Your task to perform on an android device: open app "eBay: The shopping marketplace" Image 0: 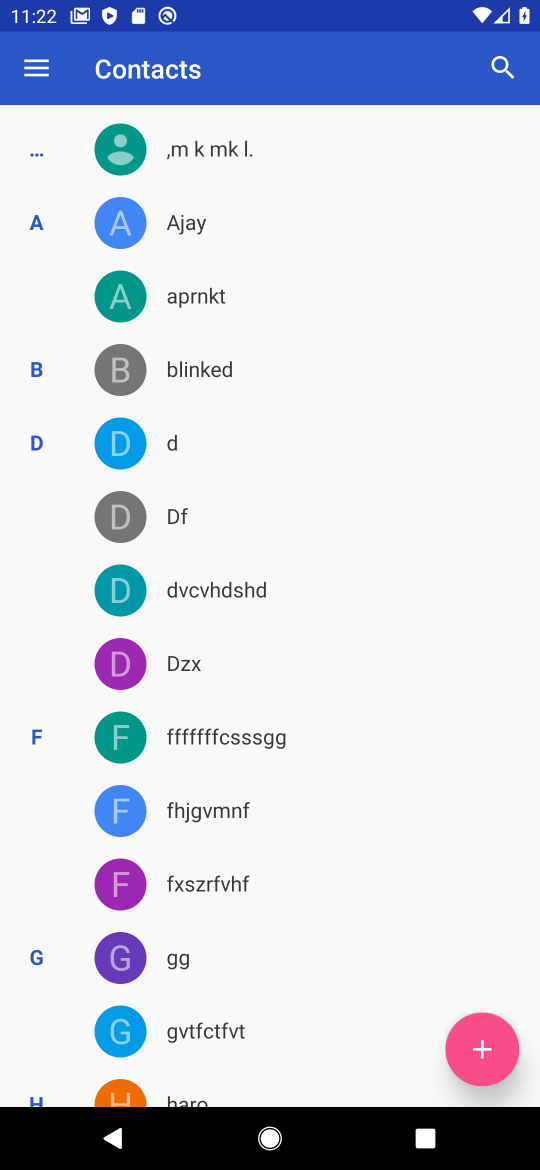
Step 0: press back button
Your task to perform on an android device: open app "eBay: The shopping marketplace" Image 1: 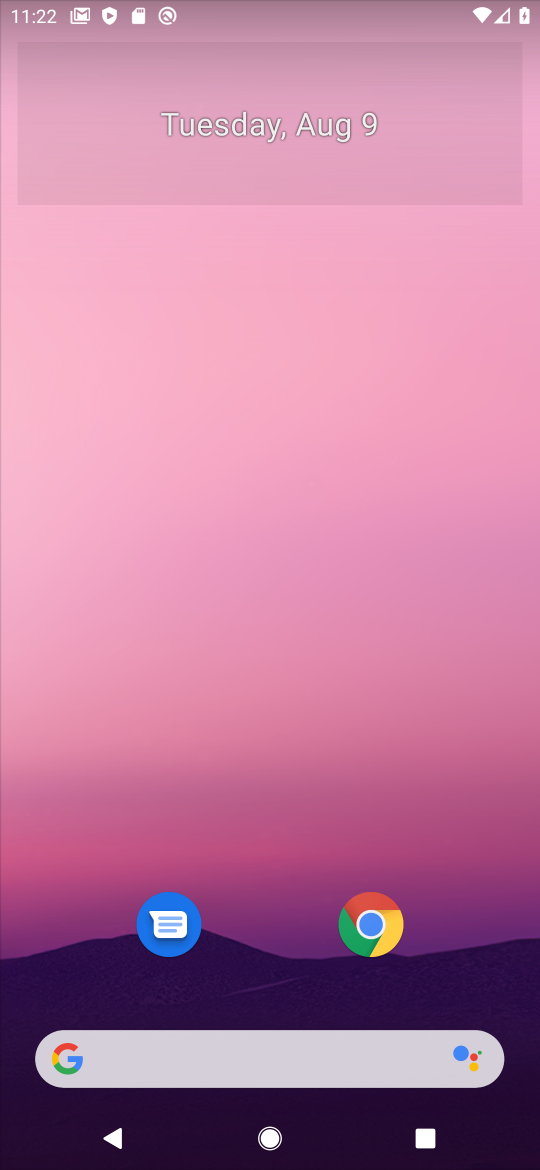
Step 1: drag from (245, 943) to (340, 120)
Your task to perform on an android device: open app "eBay: The shopping marketplace" Image 2: 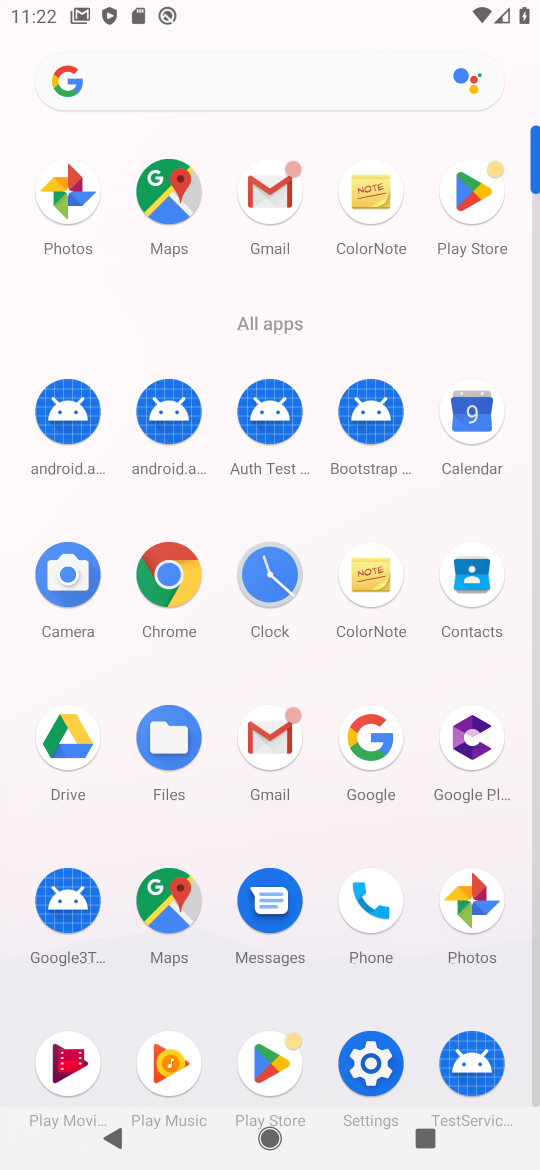
Step 2: click (457, 202)
Your task to perform on an android device: open app "eBay: The shopping marketplace" Image 3: 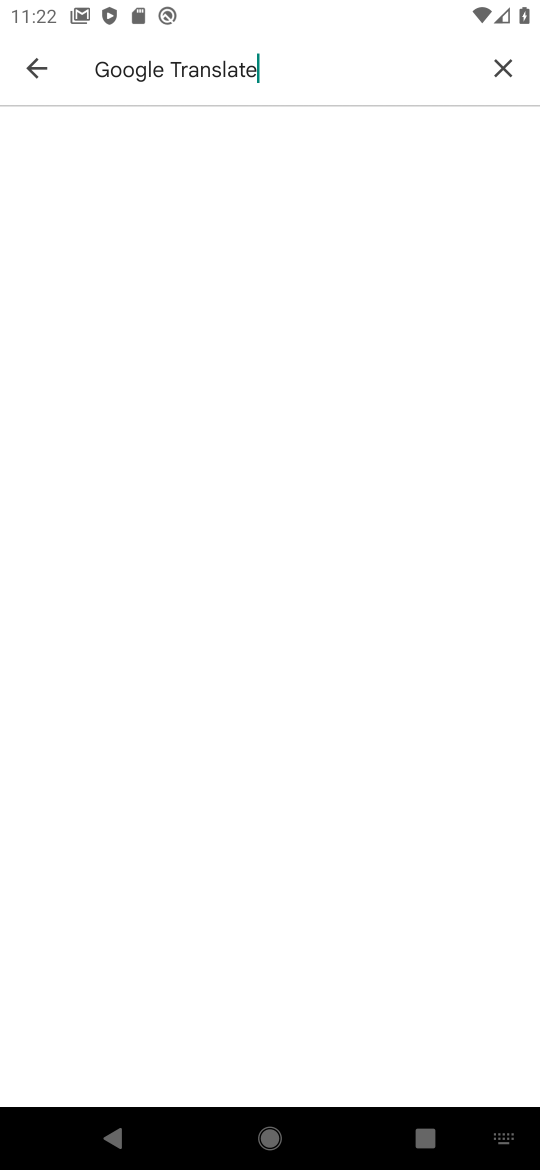
Step 3: click (507, 77)
Your task to perform on an android device: open app "eBay: The shopping marketplace" Image 4: 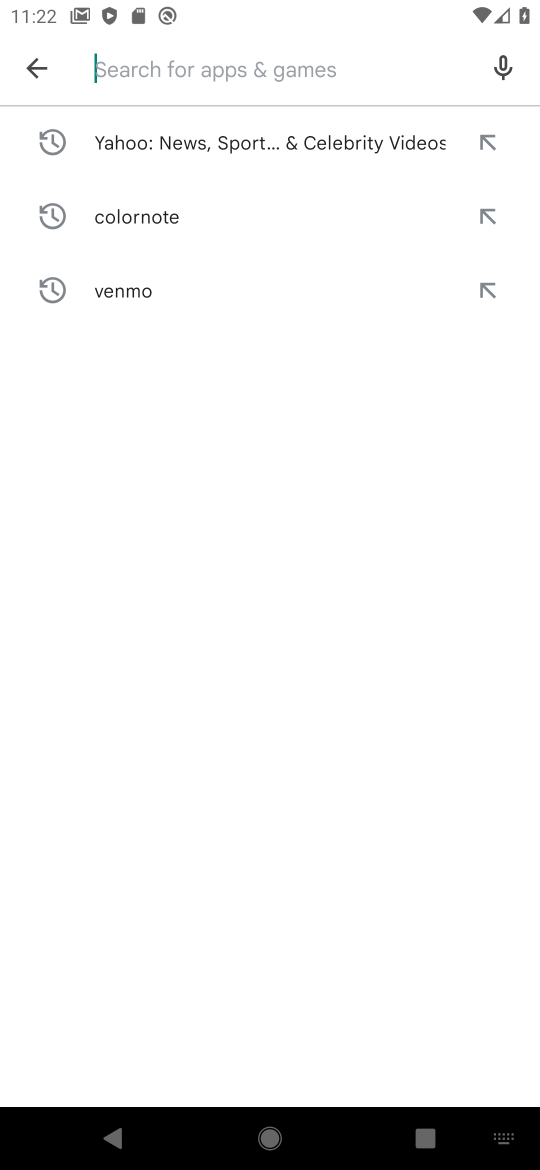
Step 4: click (189, 77)
Your task to perform on an android device: open app "eBay: The shopping marketplace" Image 5: 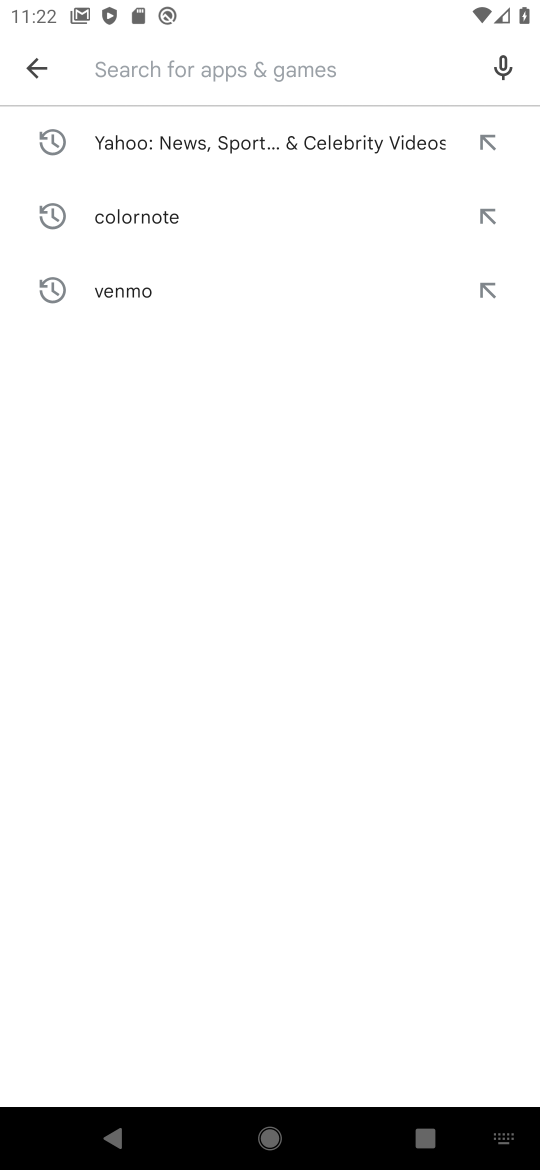
Step 5: type "ebay"
Your task to perform on an android device: open app "eBay: The shopping marketplace" Image 6: 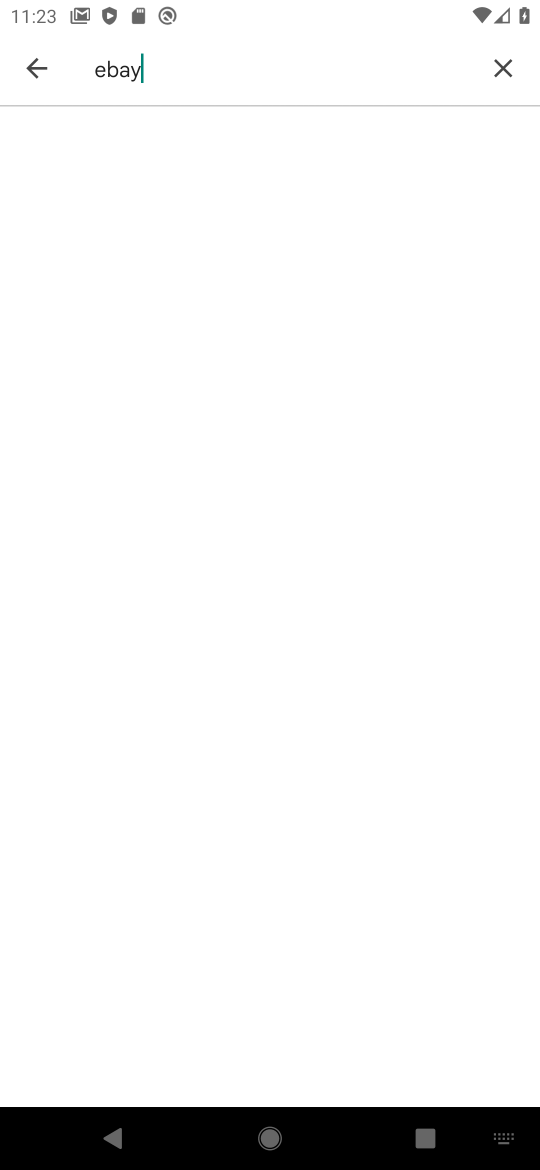
Step 6: press back button
Your task to perform on an android device: open app "eBay: The shopping marketplace" Image 7: 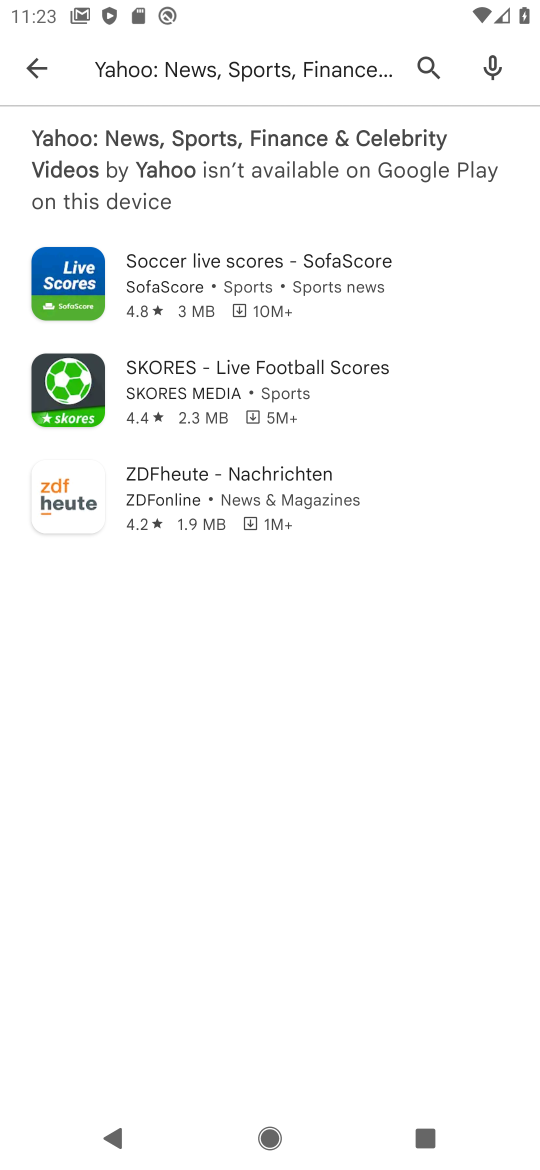
Step 7: press back button
Your task to perform on an android device: open app "eBay: The shopping marketplace" Image 8: 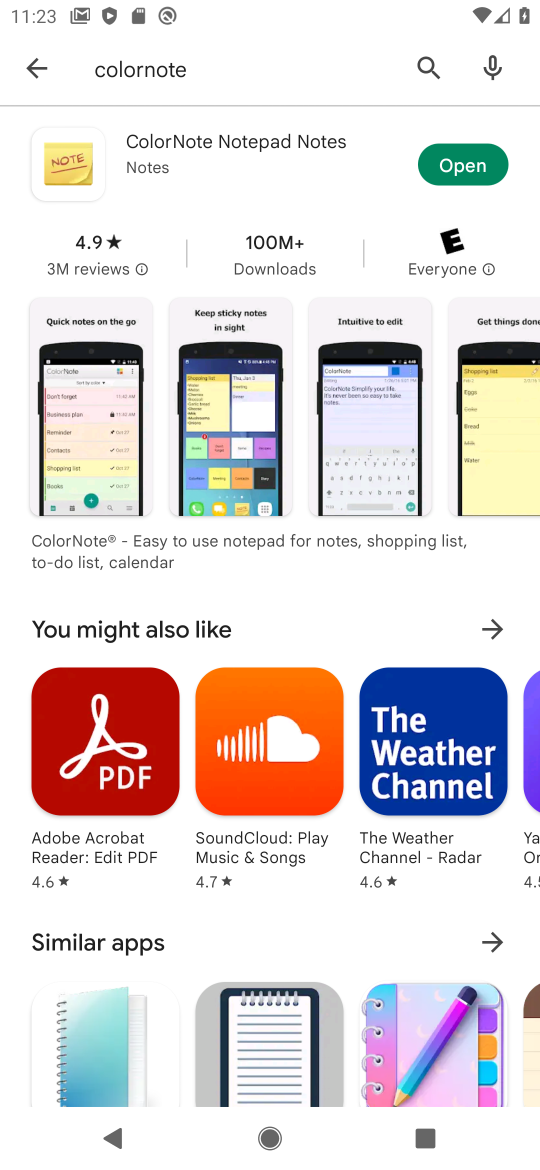
Step 8: press back button
Your task to perform on an android device: open app "eBay: The shopping marketplace" Image 9: 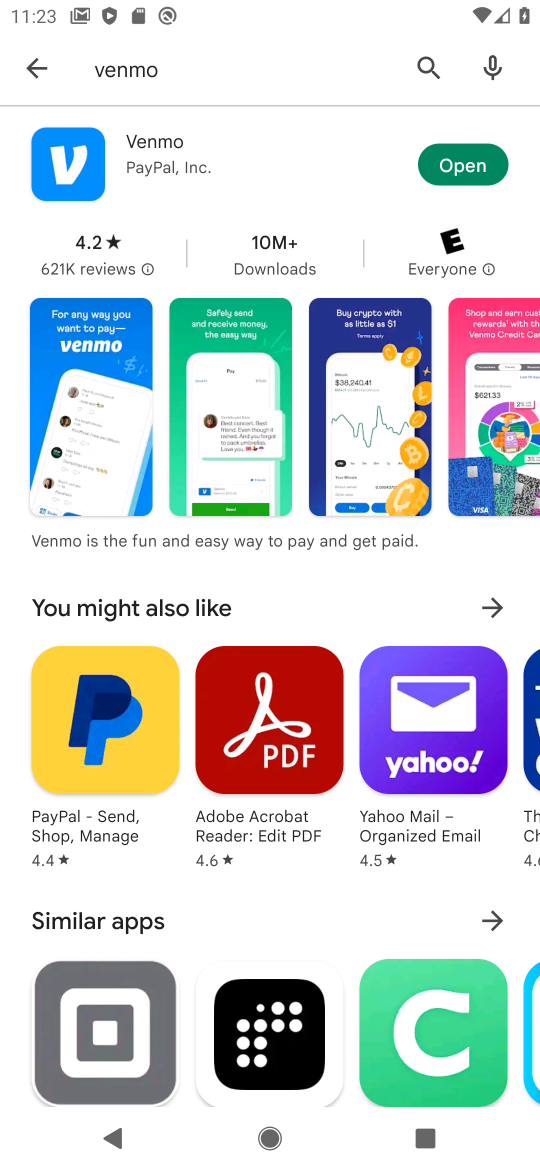
Step 9: press back button
Your task to perform on an android device: open app "eBay: The shopping marketplace" Image 10: 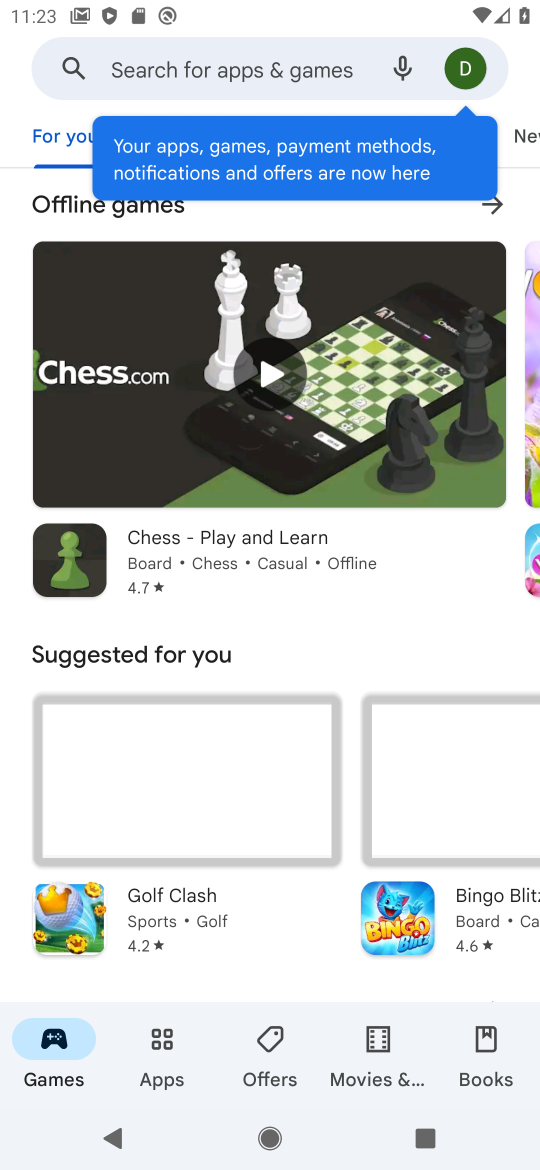
Step 10: click (161, 1031)
Your task to perform on an android device: open app "eBay: The shopping marketplace" Image 11: 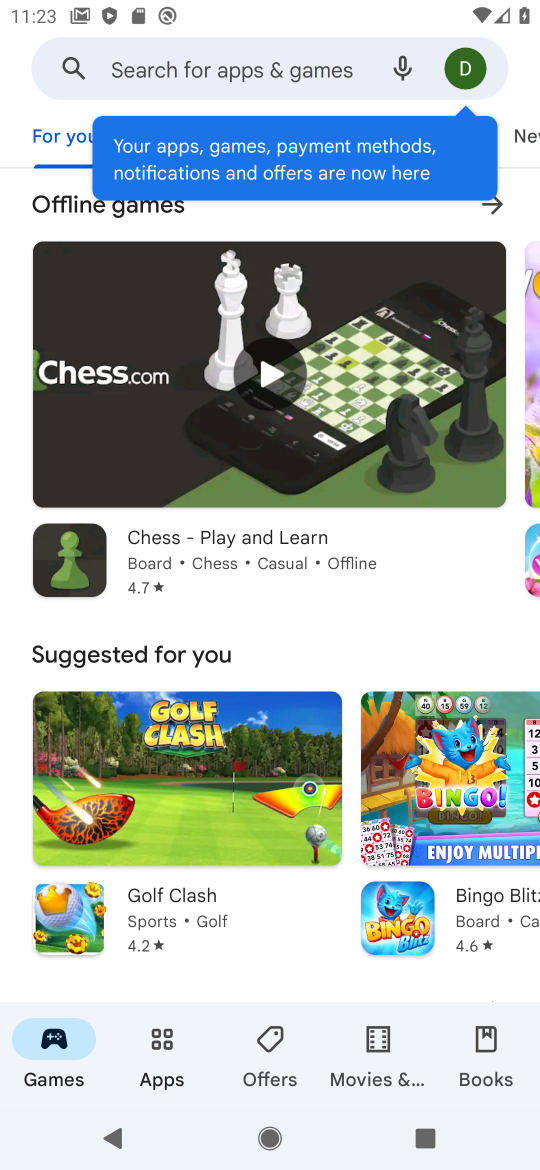
Step 11: click (164, 68)
Your task to perform on an android device: open app "eBay: The shopping marketplace" Image 12: 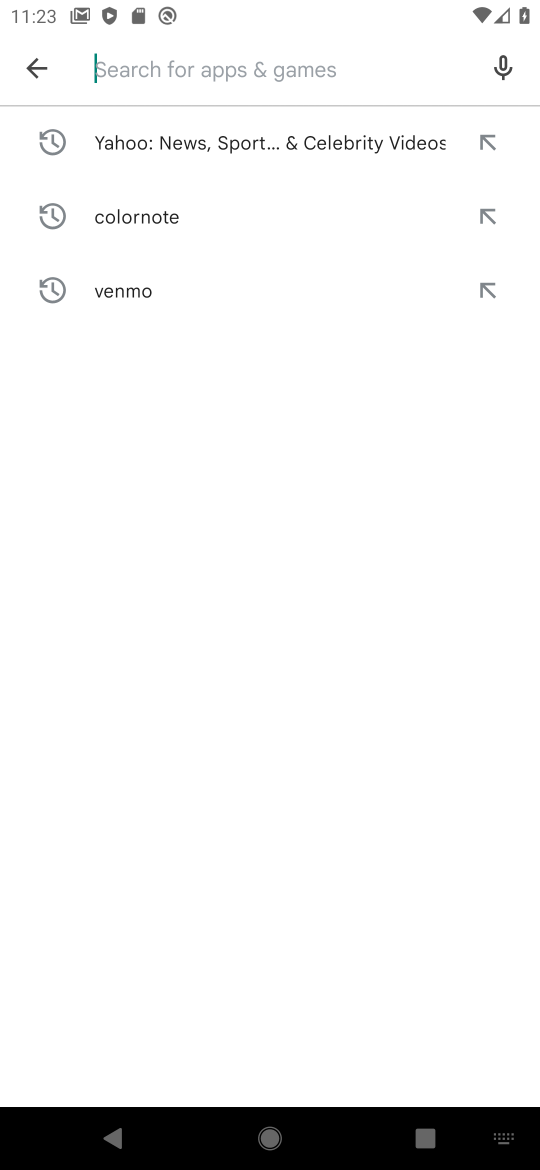
Step 12: type "ebay"
Your task to perform on an android device: open app "eBay: The shopping marketplace" Image 13: 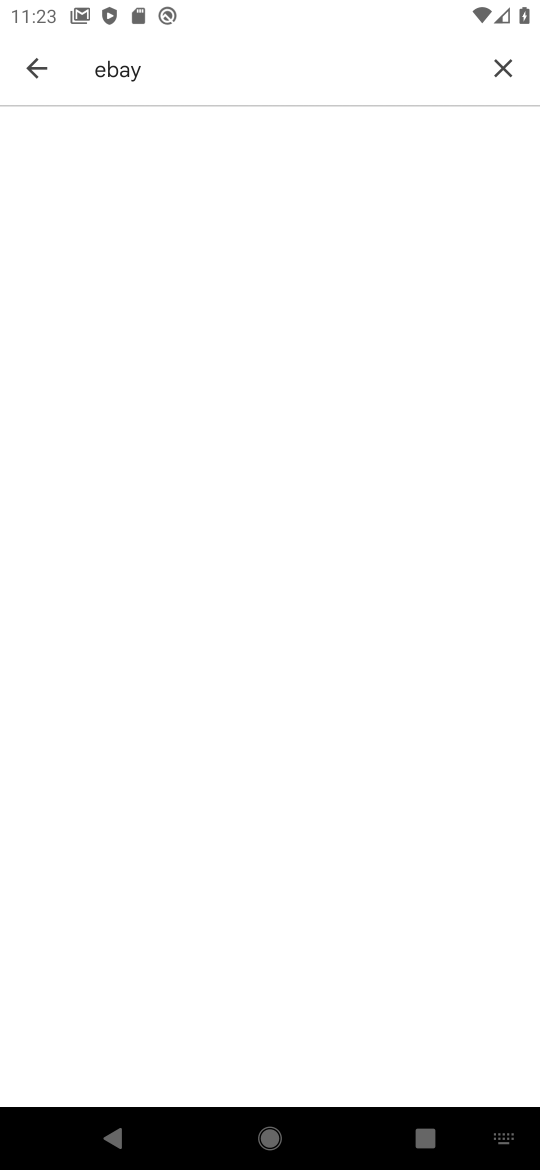
Step 13: drag from (310, 154) to (268, 925)
Your task to perform on an android device: open app "eBay: The shopping marketplace" Image 14: 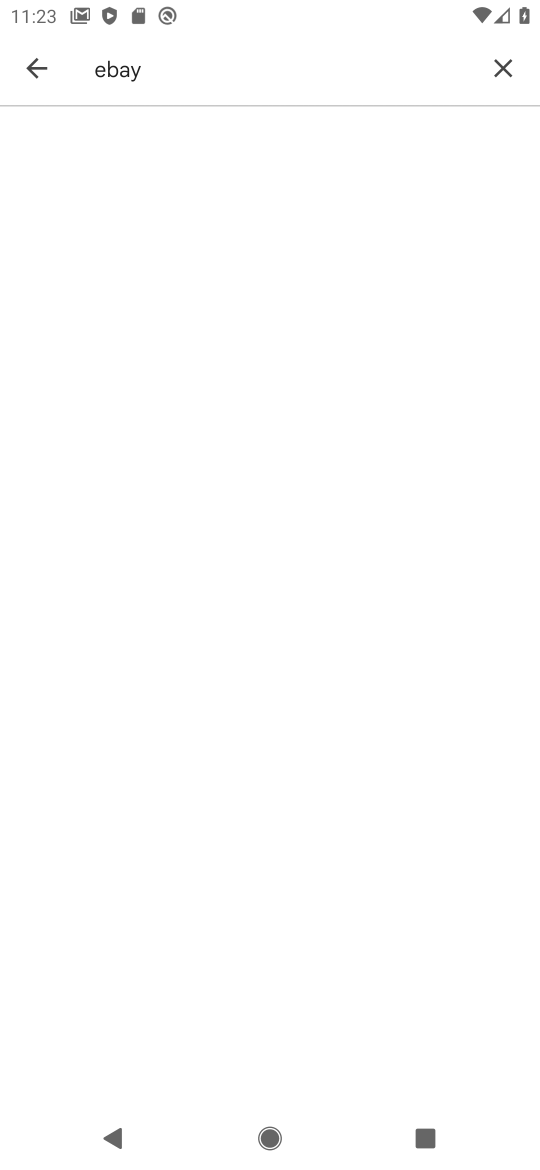
Step 14: click (490, 58)
Your task to perform on an android device: open app "eBay: The shopping marketplace" Image 15: 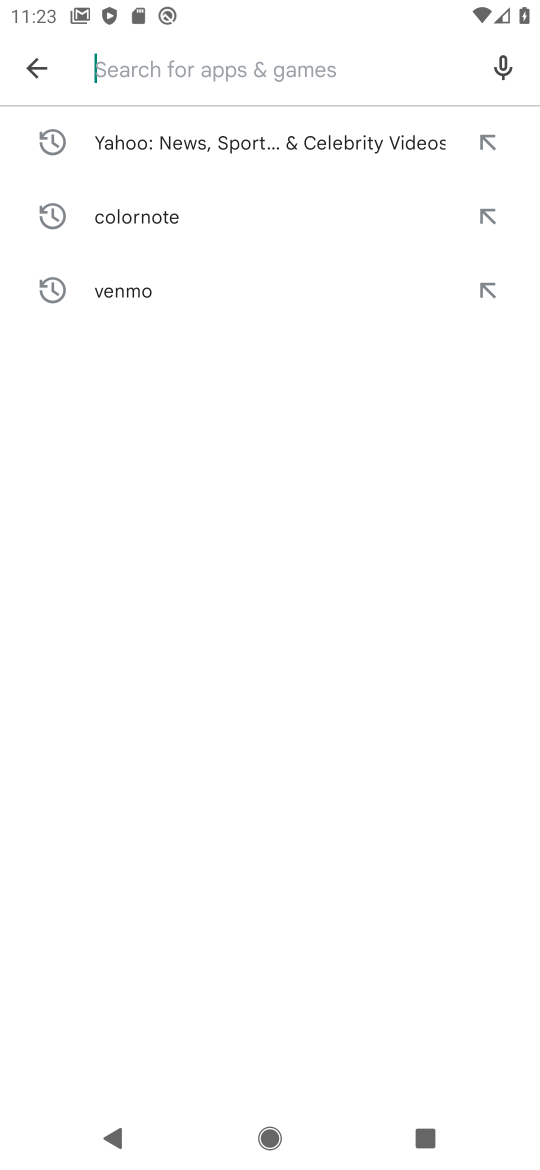
Step 15: click (163, 67)
Your task to perform on an android device: open app "eBay: The shopping marketplace" Image 16: 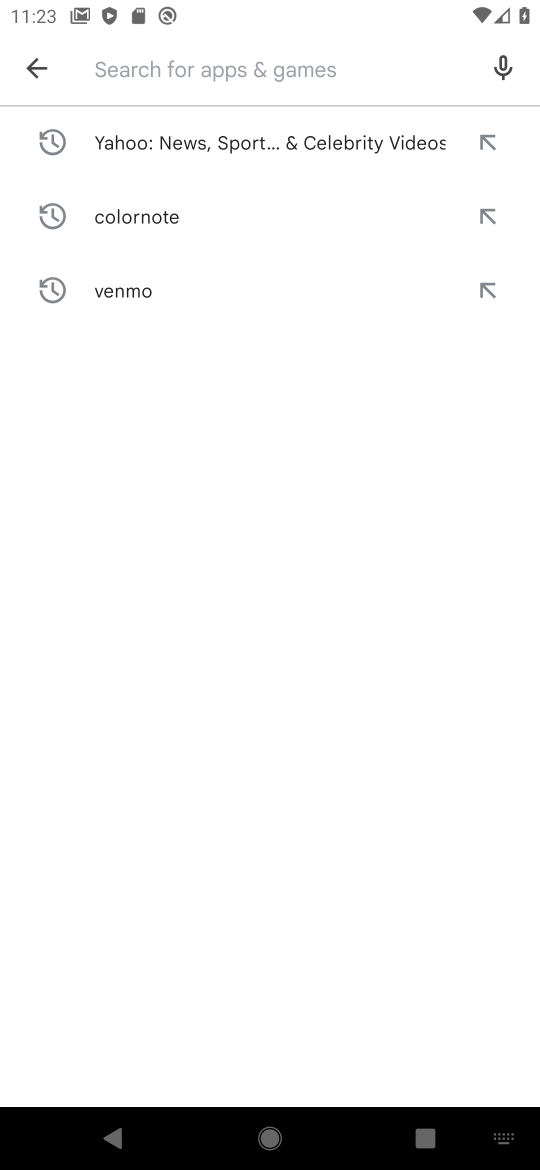
Step 16: click (202, 144)
Your task to perform on an android device: open app "eBay: The shopping marketplace" Image 17: 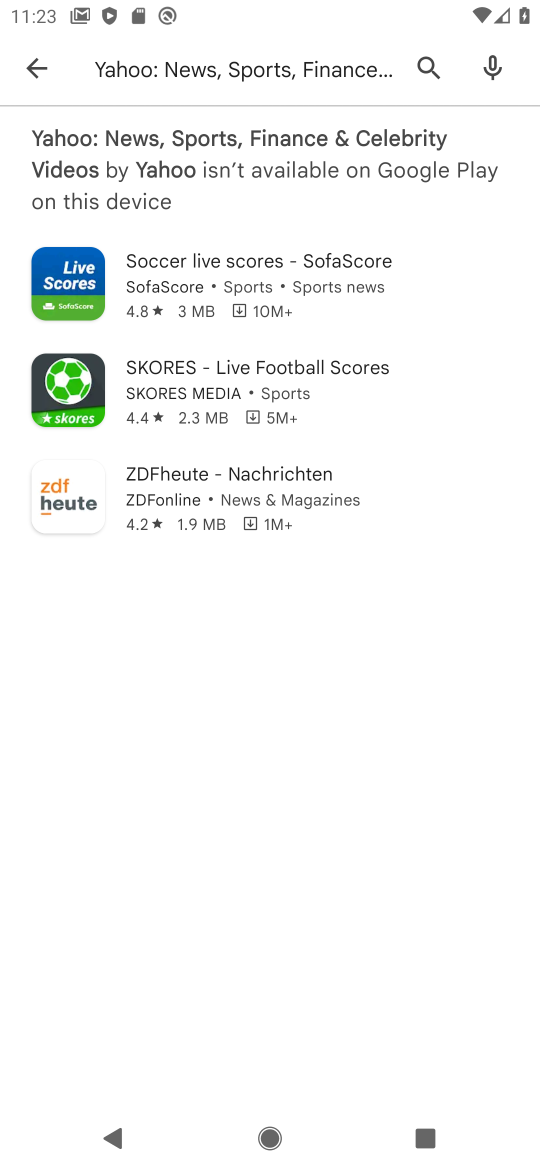
Step 17: click (433, 71)
Your task to perform on an android device: open app "eBay: The shopping marketplace" Image 18: 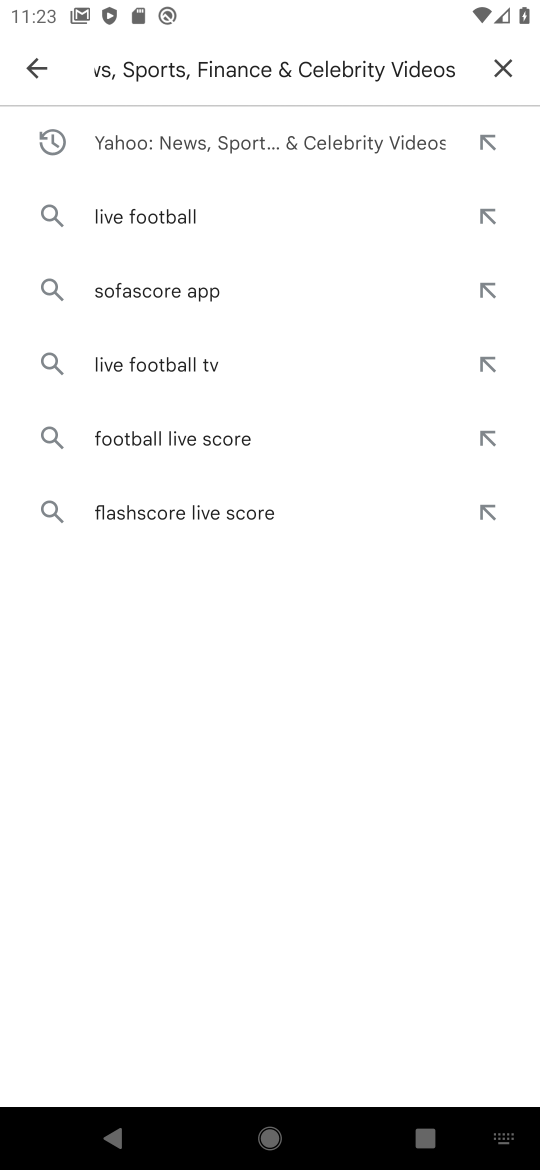
Step 18: click (493, 47)
Your task to perform on an android device: open app "eBay: The shopping marketplace" Image 19: 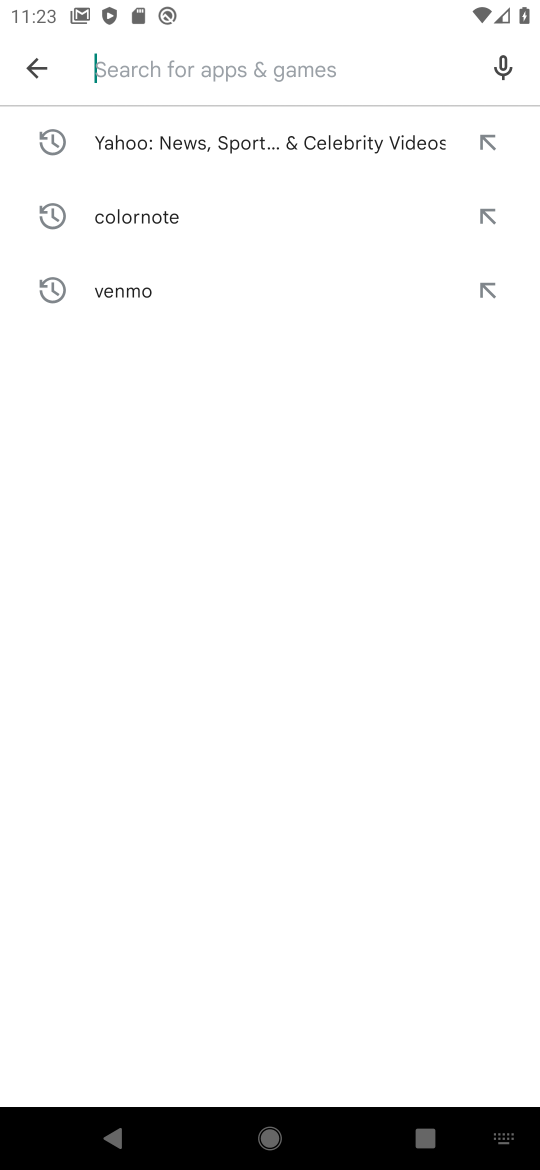
Step 19: click (168, 75)
Your task to perform on an android device: open app "eBay: The shopping marketplace" Image 20: 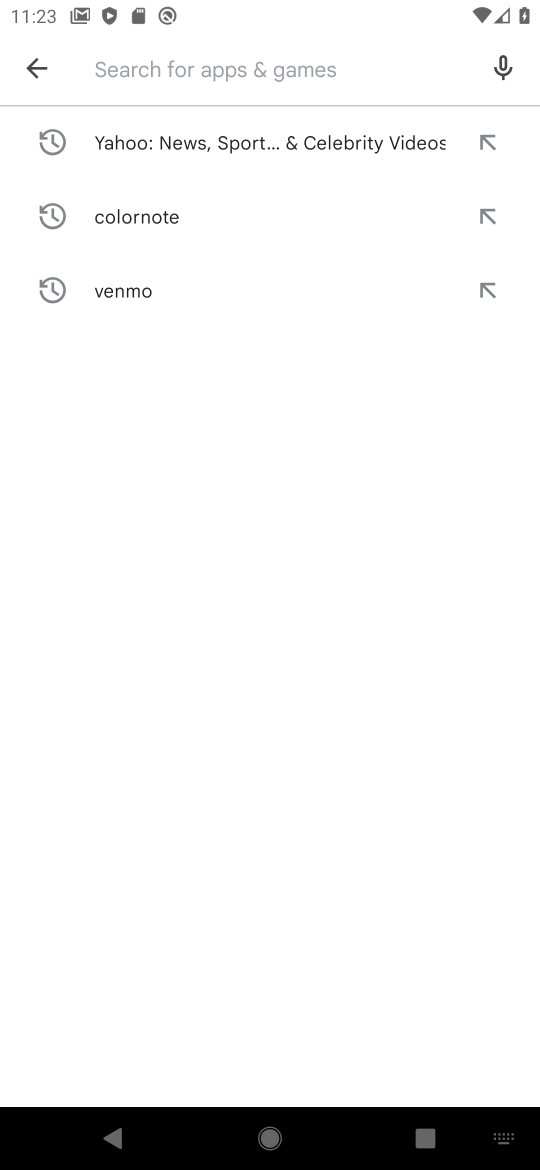
Step 20: type "eBay: The shopping marketplace"
Your task to perform on an android device: open app "eBay: The shopping marketplace" Image 21: 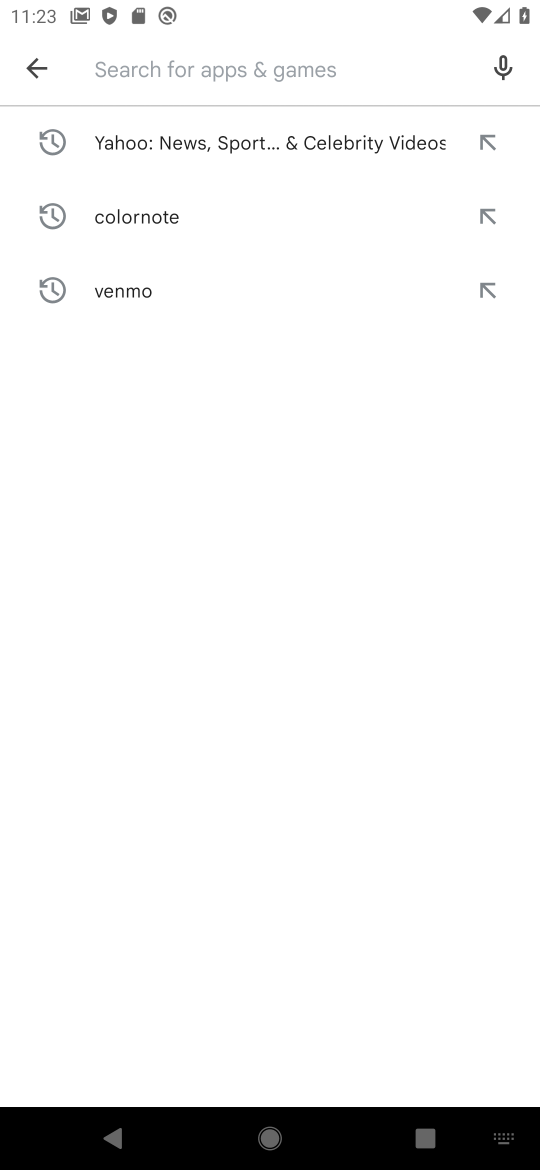
Step 21: click (297, 458)
Your task to perform on an android device: open app "eBay: The shopping marketplace" Image 22: 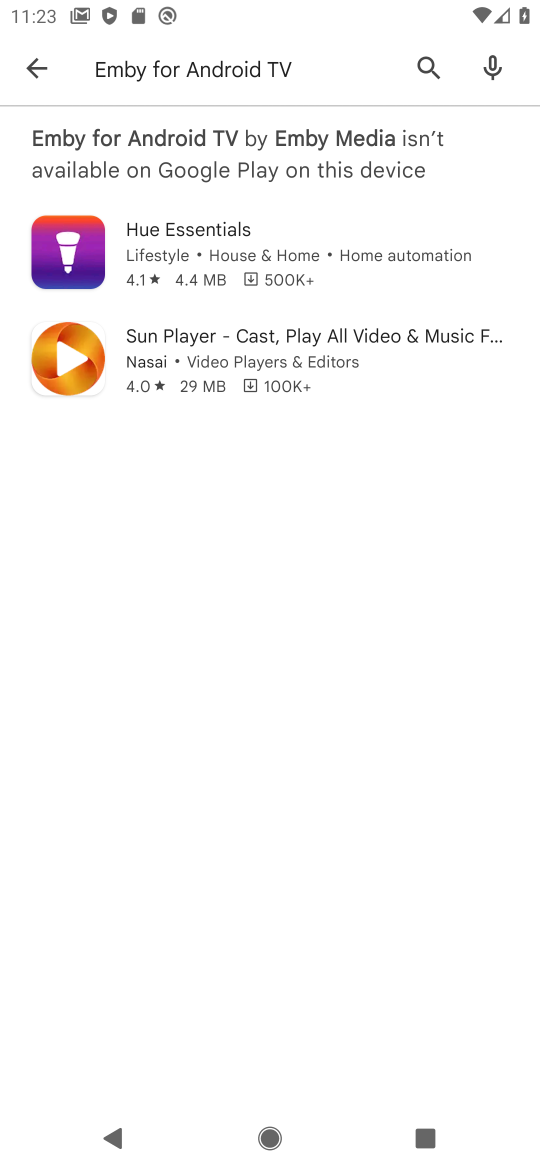
Step 22: click (414, 62)
Your task to perform on an android device: open app "eBay: The shopping marketplace" Image 23: 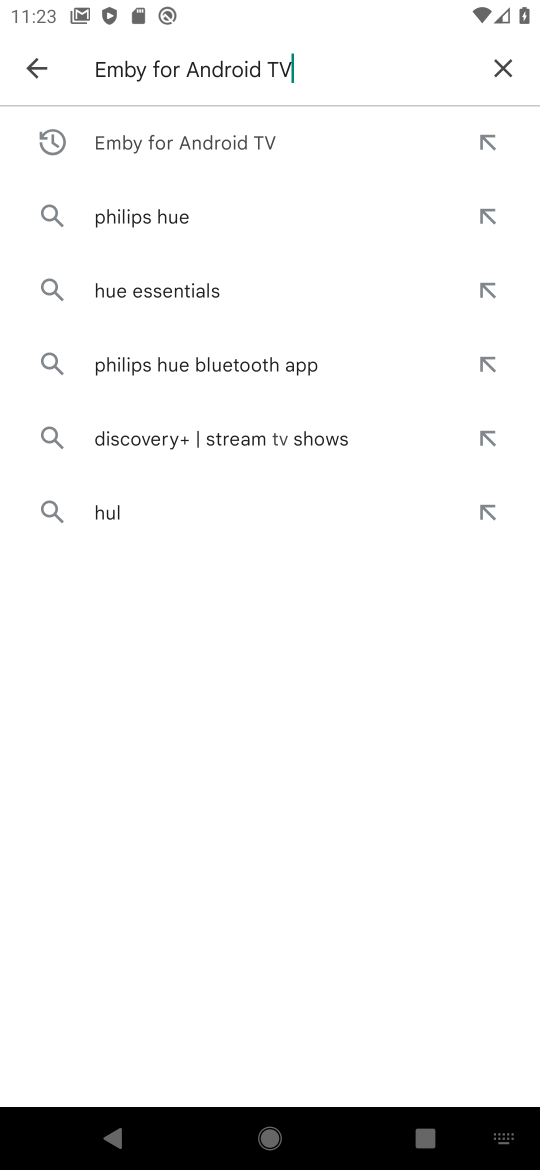
Step 23: click (510, 63)
Your task to perform on an android device: open app "eBay: The shopping marketplace" Image 24: 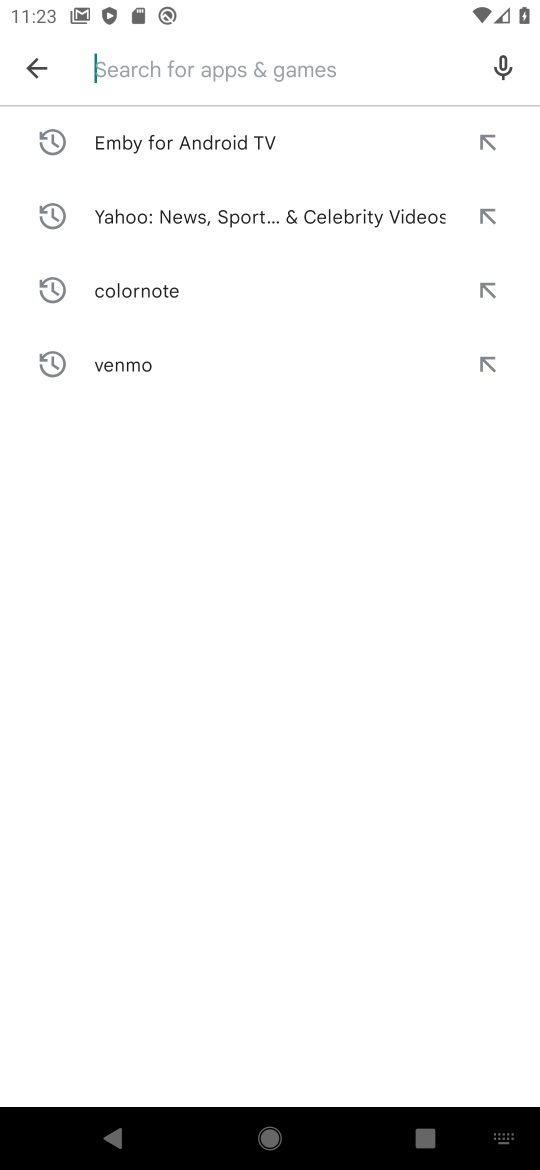
Step 24: click (208, 90)
Your task to perform on an android device: open app "eBay: The shopping marketplace" Image 25: 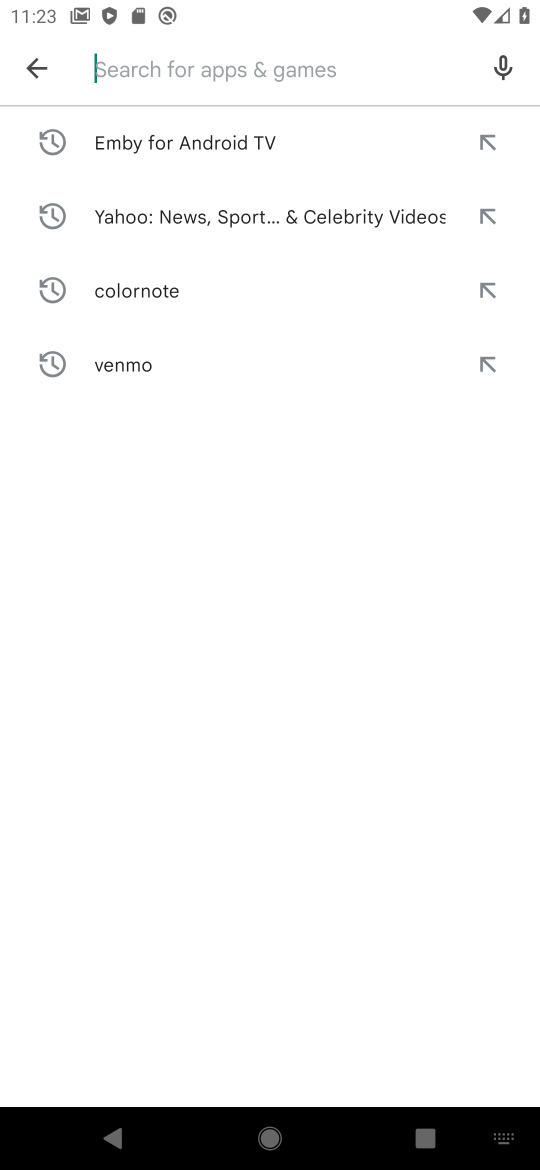
Step 25: type "ebay"
Your task to perform on an android device: open app "eBay: The shopping marketplace" Image 26: 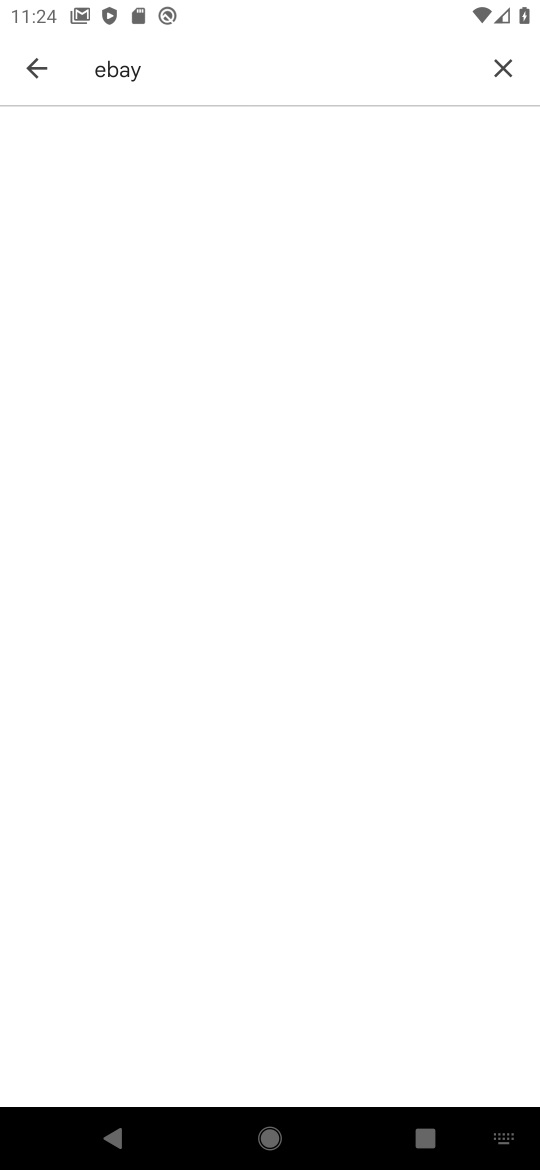
Step 26: task complete